Your task to perform on an android device: toggle javascript in the chrome app Image 0: 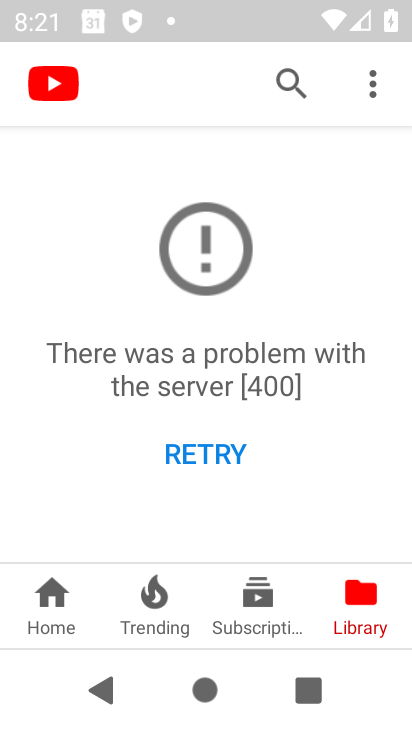
Step 0: press home button
Your task to perform on an android device: toggle javascript in the chrome app Image 1: 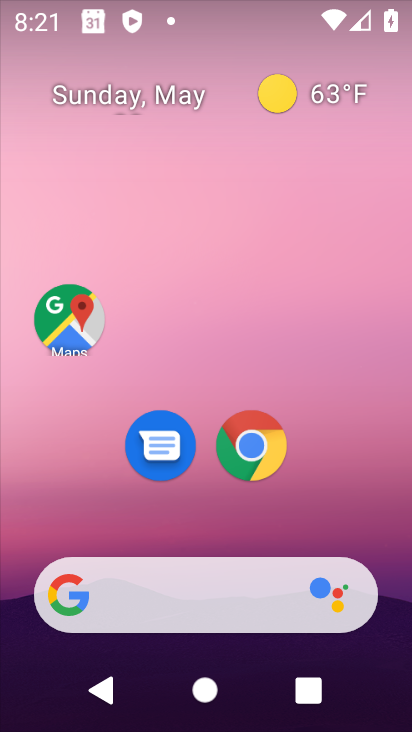
Step 1: drag from (380, 530) to (399, 176)
Your task to perform on an android device: toggle javascript in the chrome app Image 2: 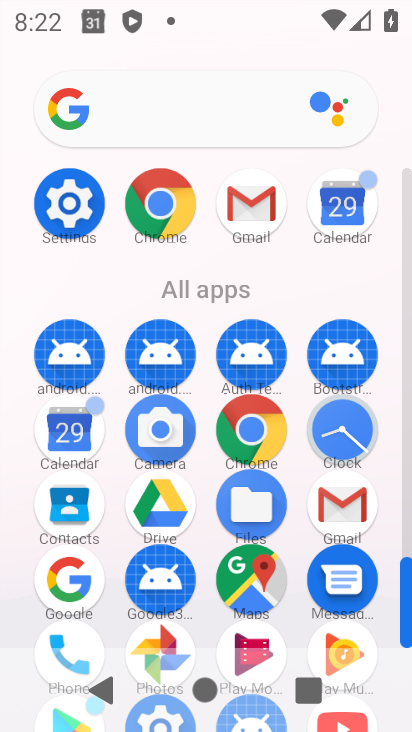
Step 2: click (256, 433)
Your task to perform on an android device: toggle javascript in the chrome app Image 3: 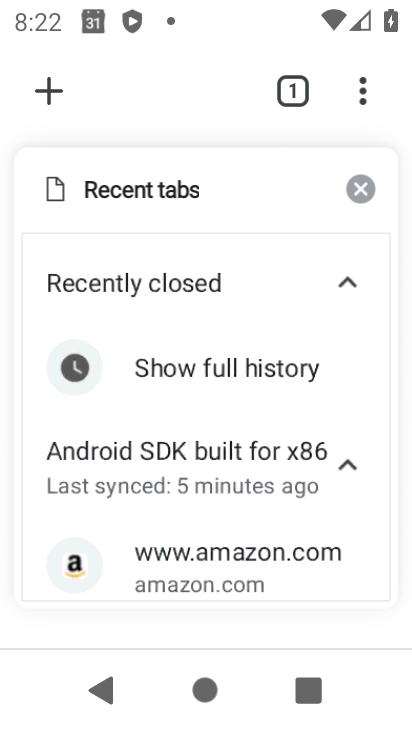
Step 3: click (368, 103)
Your task to perform on an android device: toggle javascript in the chrome app Image 4: 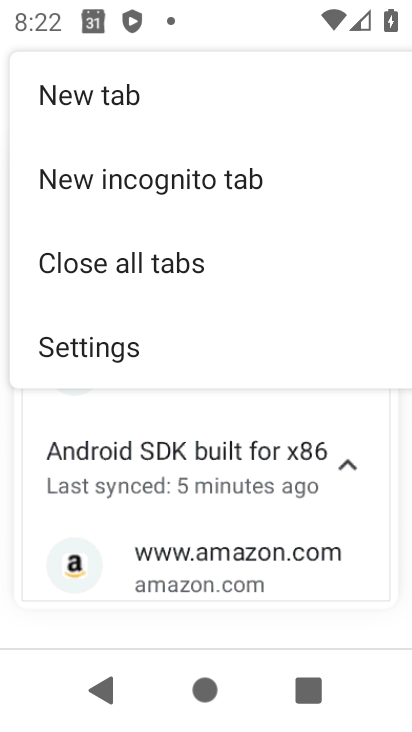
Step 4: click (161, 358)
Your task to perform on an android device: toggle javascript in the chrome app Image 5: 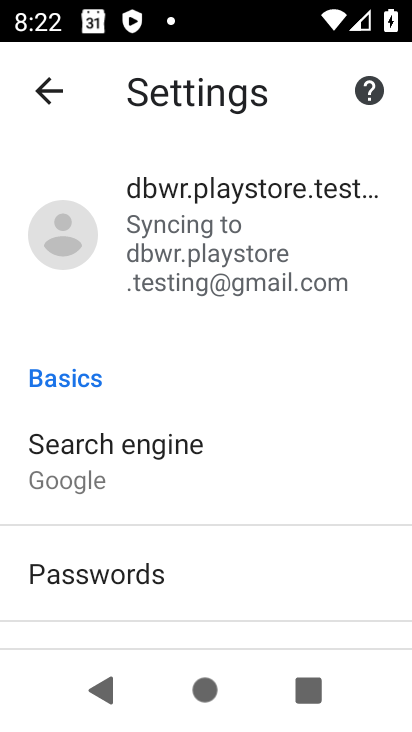
Step 5: drag from (329, 542) to (341, 363)
Your task to perform on an android device: toggle javascript in the chrome app Image 6: 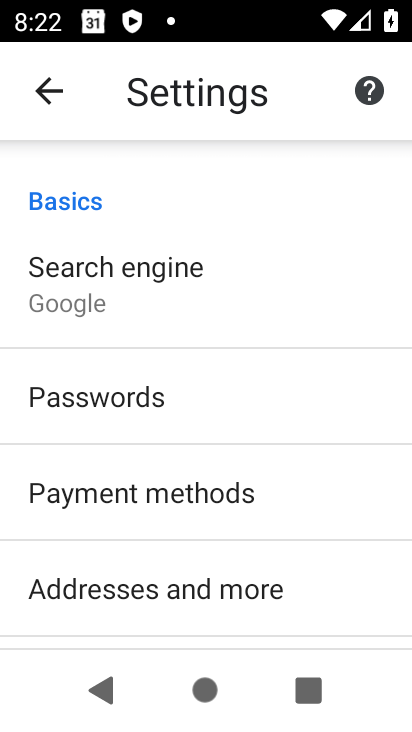
Step 6: drag from (359, 589) to (351, 462)
Your task to perform on an android device: toggle javascript in the chrome app Image 7: 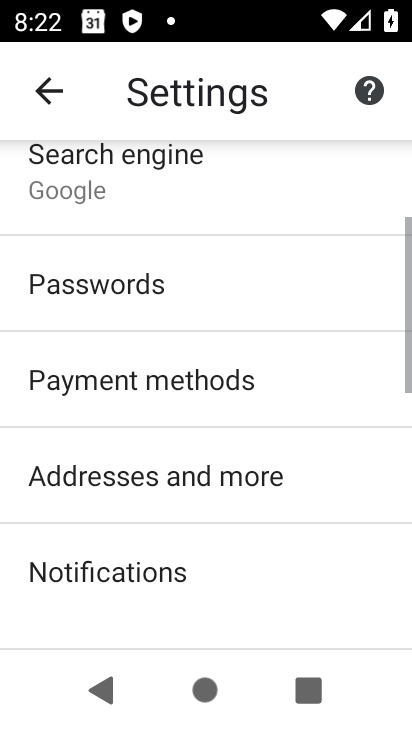
Step 7: drag from (360, 609) to (341, 451)
Your task to perform on an android device: toggle javascript in the chrome app Image 8: 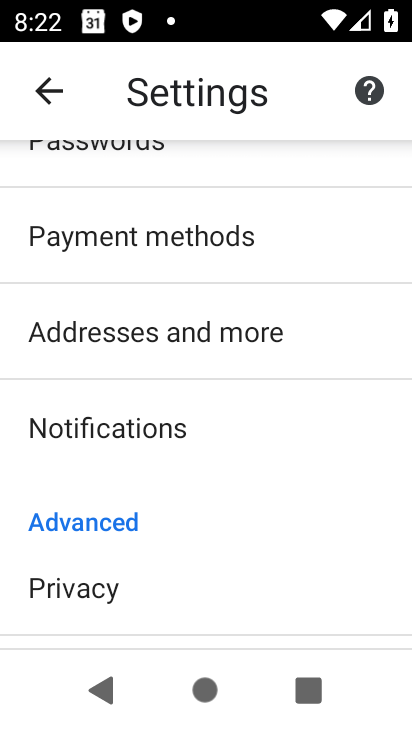
Step 8: drag from (338, 562) to (352, 420)
Your task to perform on an android device: toggle javascript in the chrome app Image 9: 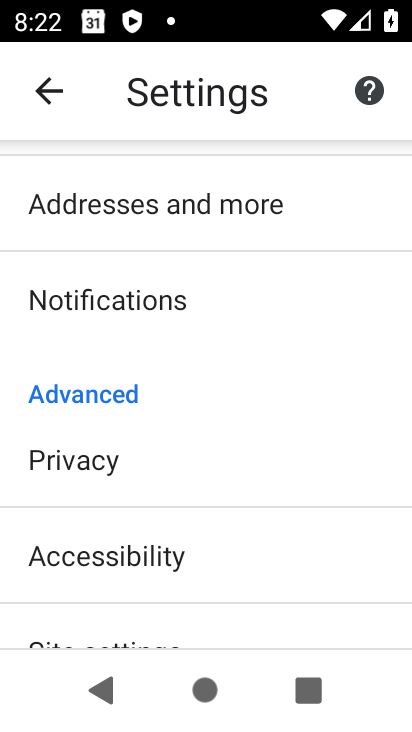
Step 9: drag from (332, 578) to (337, 433)
Your task to perform on an android device: toggle javascript in the chrome app Image 10: 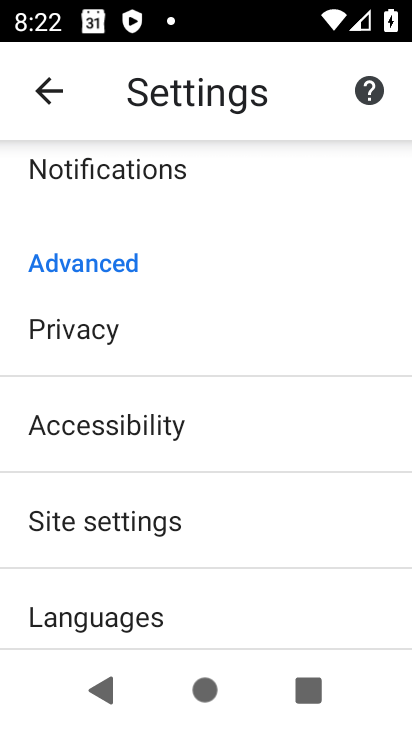
Step 10: drag from (334, 573) to (325, 453)
Your task to perform on an android device: toggle javascript in the chrome app Image 11: 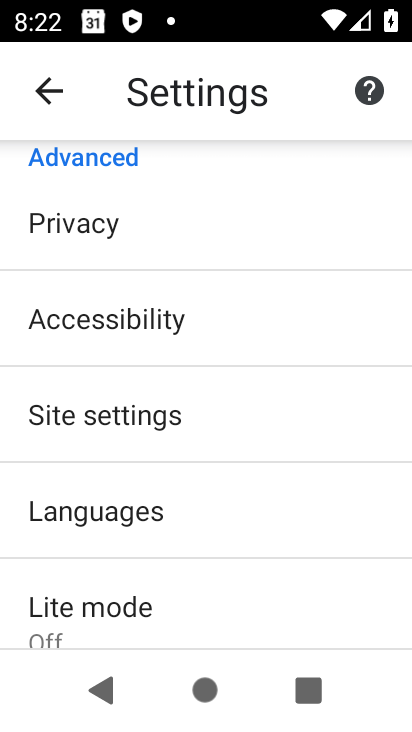
Step 11: drag from (312, 599) to (320, 414)
Your task to perform on an android device: toggle javascript in the chrome app Image 12: 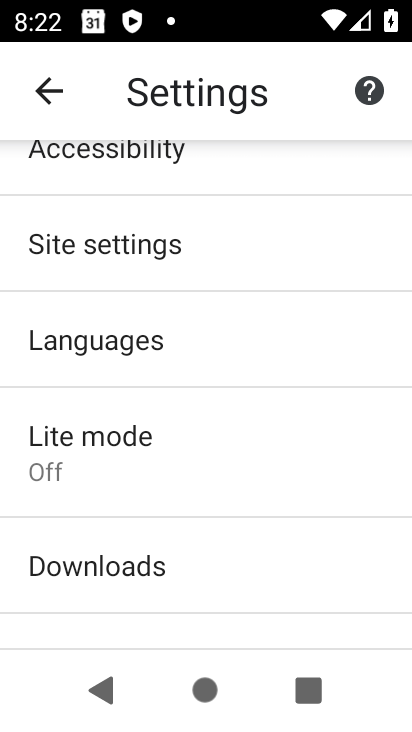
Step 12: drag from (292, 584) to (299, 377)
Your task to perform on an android device: toggle javascript in the chrome app Image 13: 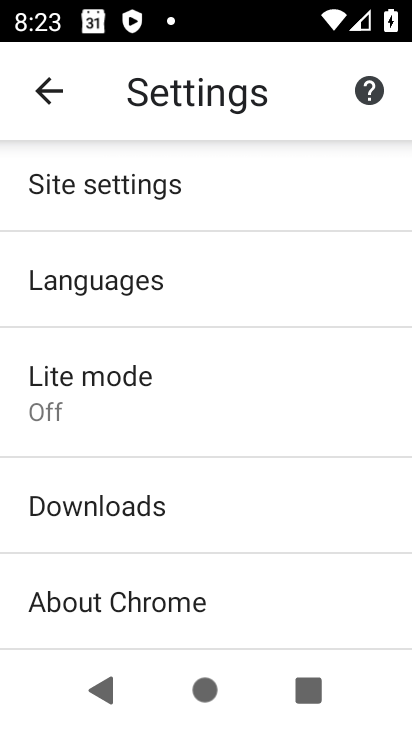
Step 13: drag from (312, 332) to (291, 445)
Your task to perform on an android device: toggle javascript in the chrome app Image 14: 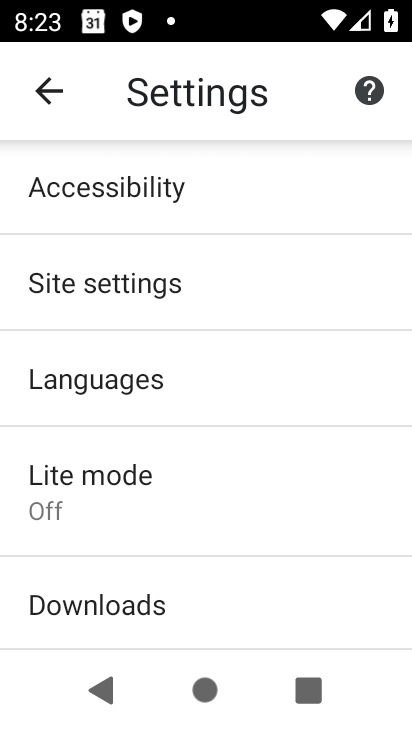
Step 14: drag from (293, 339) to (296, 452)
Your task to perform on an android device: toggle javascript in the chrome app Image 15: 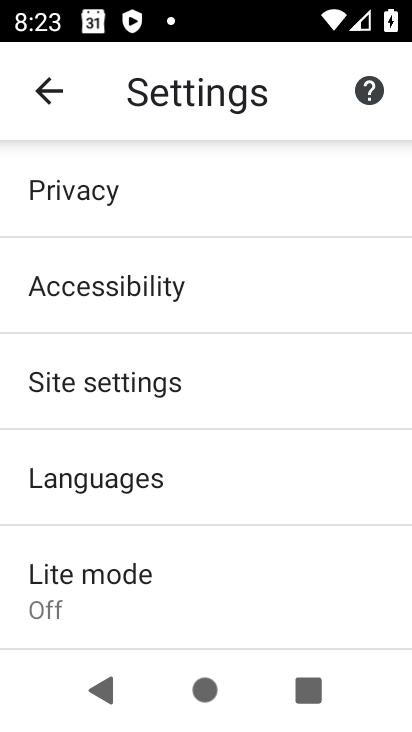
Step 15: drag from (295, 341) to (304, 493)
Your task to perform on an android device: toggle javascript in the chrome app Image 16: 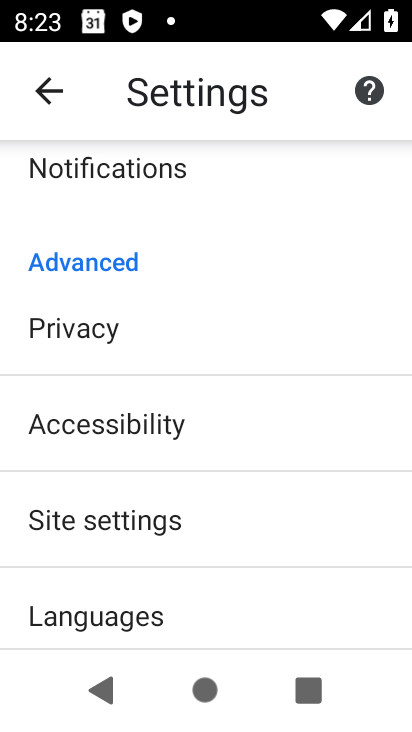
Step 16: click (289, 521)
Your task to perform on an android device: toggle javascript in the chrome app Image 17: 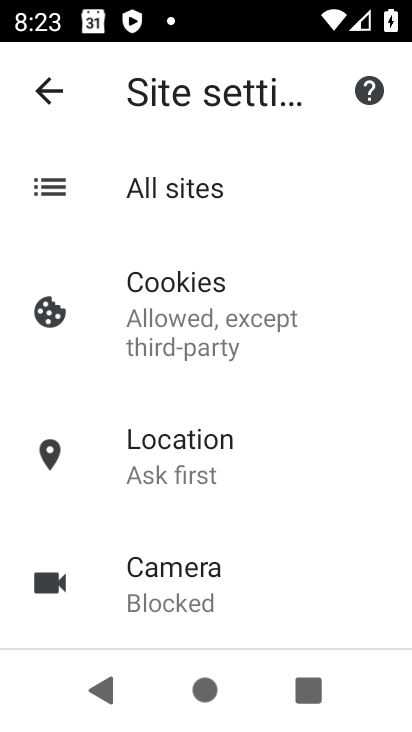
Step 17: drag from (303, 543) to (313, 411)
Your task to perform on an android device: toggle javascript in the chrome app Image 18: 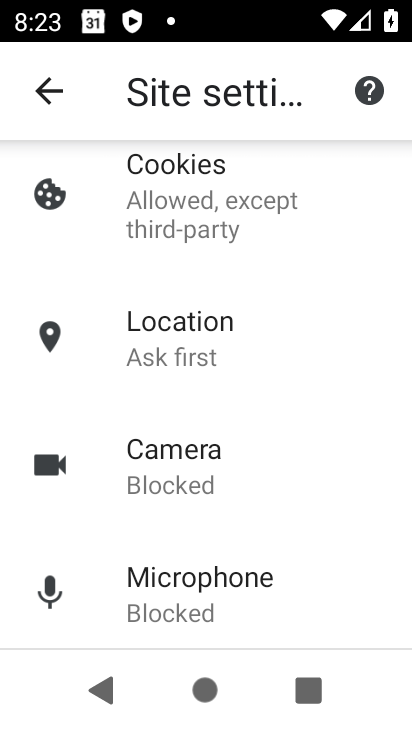
Step 18: drag from (346, 575) to (347, 450)
Your task to perform on an android device: toggle javascript in the chrome app Image 19: 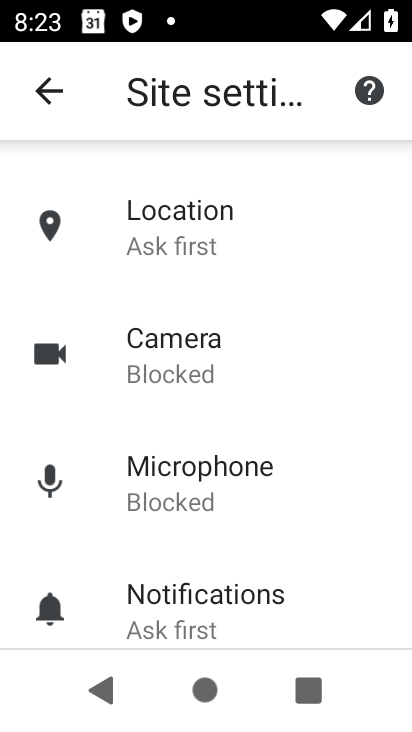
Step 19: drag from (347, 554) to (352, 432)
Your task to perform on an android device: toggle javascript in the chrome app Image 20: 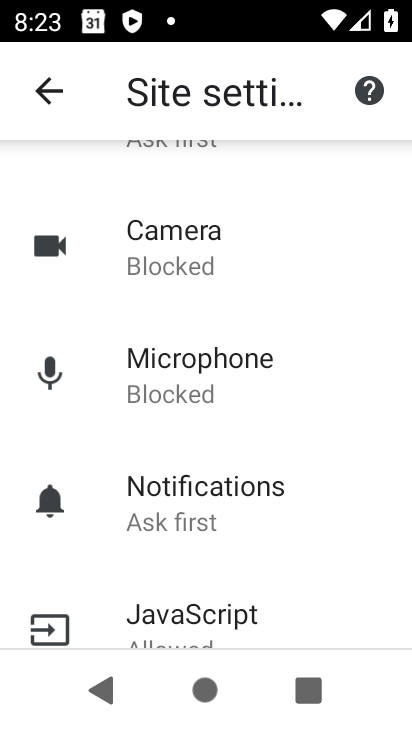
Step 20: drag from (332, 568) to (328, 372)
Your task to perform on an android device: toggle javascript in the chrome app Image 21: 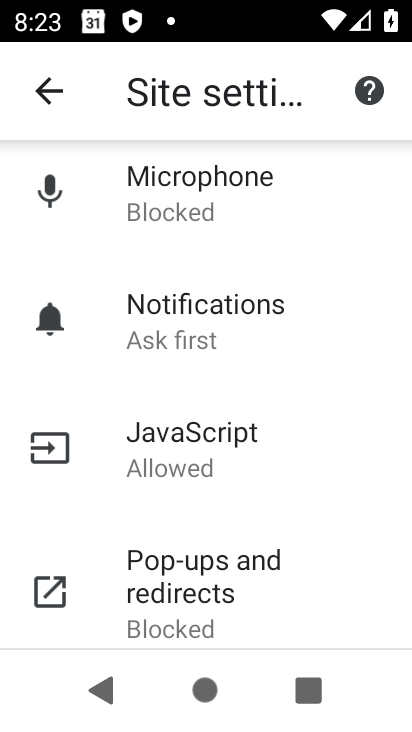
Step 21: click (272, 480)
Your task to perform on an android device: toggle javascript in the chrome app Image 22: 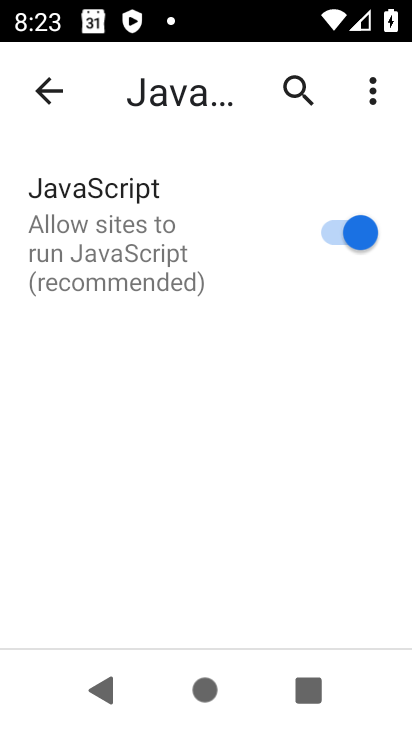
Step 22: click (339, 232)
Your task to perform on an android device: toggle javascript in the chrome app Image 23: 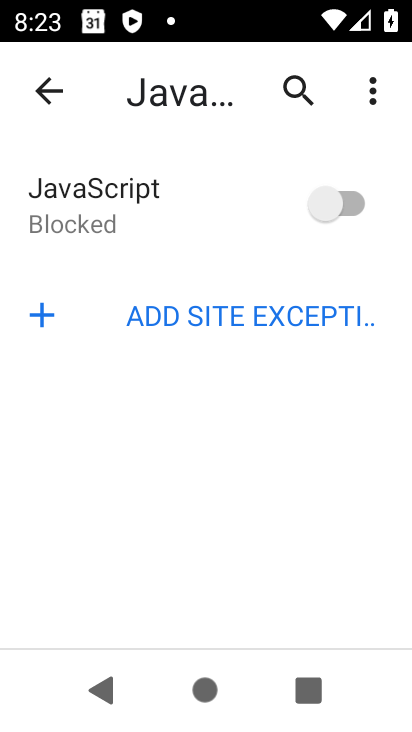
Step 23: task complete